Your task to perform on an android device: turn off sleep mode Image 0: 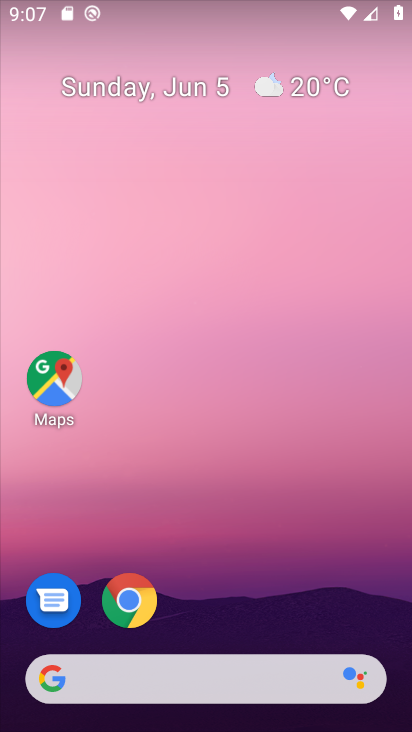
Step 0: drag from (237, 606) to (235, 10)
Your task to perform on an android device: turn off sleep mode Image 1: 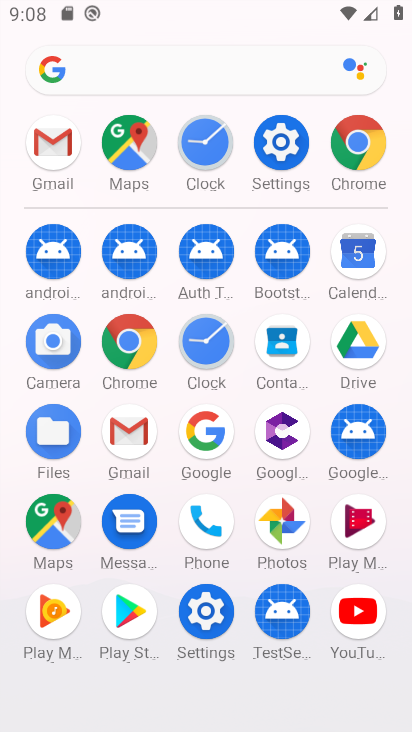
Step 1: click (288, 128)
Your task to perform on an android device: turn off sleep mode Image 2: 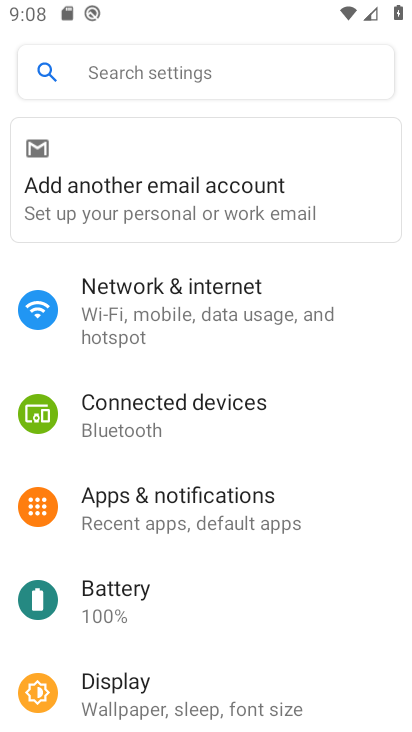
Step 2: click (211, 673)
Your task to perform on an android device: turn off sleep mode Image 3: 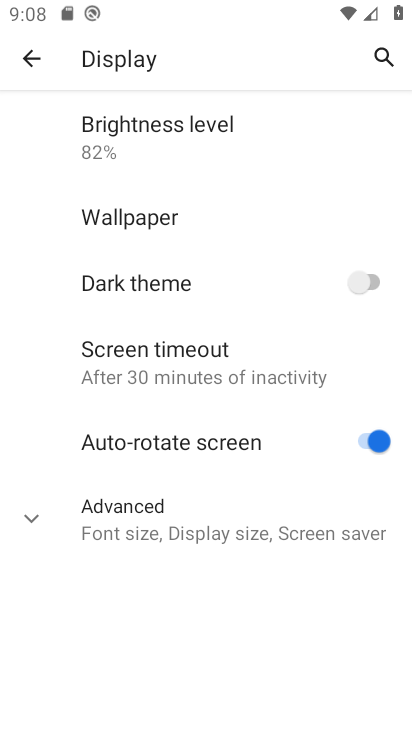
Step 3: click (36, 512)
Your task to perform on an android device: turn off sleep mode Image 4: 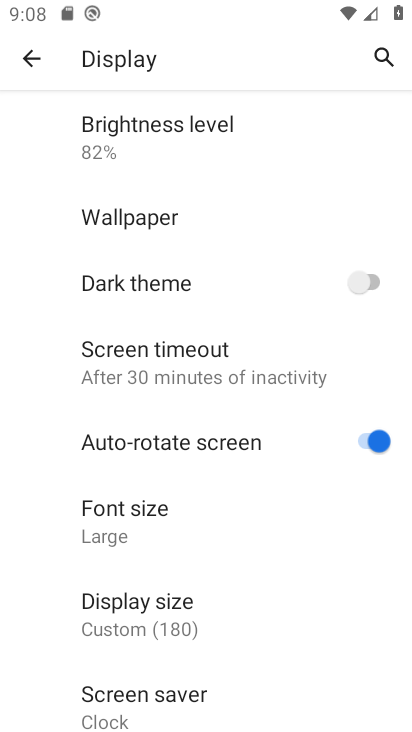
Step 4: task complete